Your task to perform on an android device: set default search engine in the chrome app Image 0: 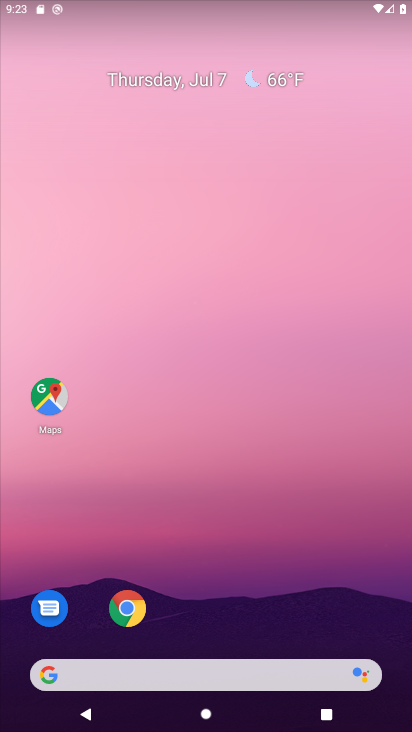
Step 0: click (132, 603)
Your task to perform on an android device: set default search engine in the chrome app Image 1: 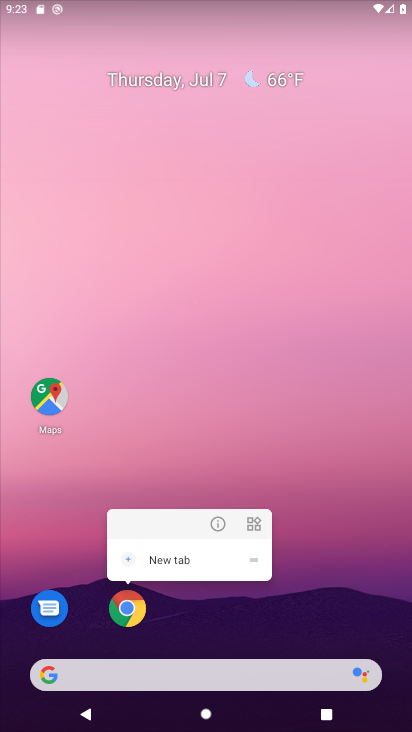
Step 1: click (126, 603)
Your task to perform on an android device: set default search engine in the chrome app Image 2: 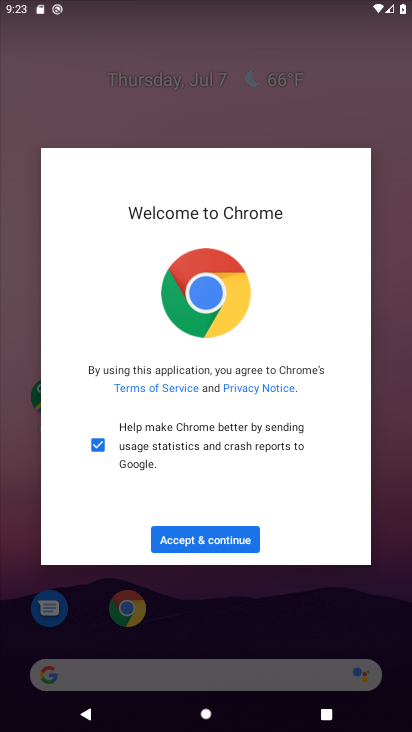
Step 2: click (202, 533)
Your task to perform on an android device: set default search engine in the chrome app Image 3: 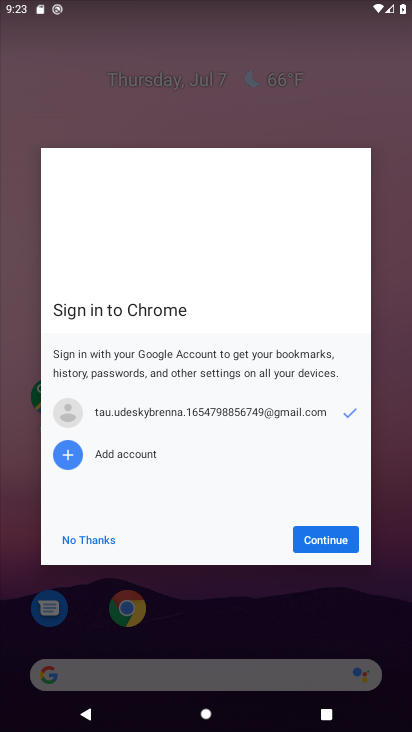
Step 3: click (331, 535)
Your task to perform on an android device: set default search engine in the chrome app Image 4: 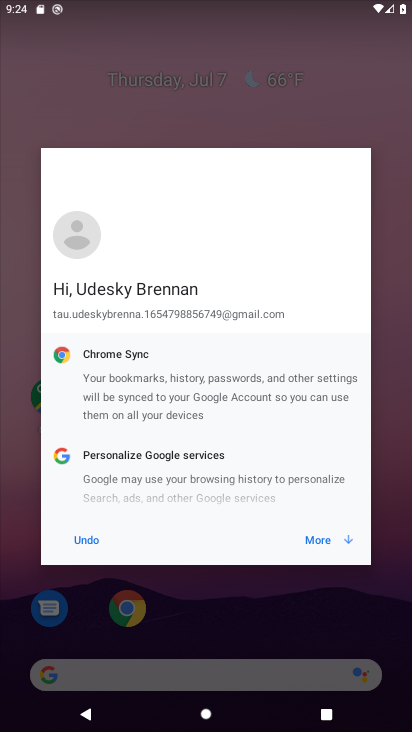
Step 4: click (353, 547)
Your task to perform on an android device: set default search engine in the chrome app Image 5: 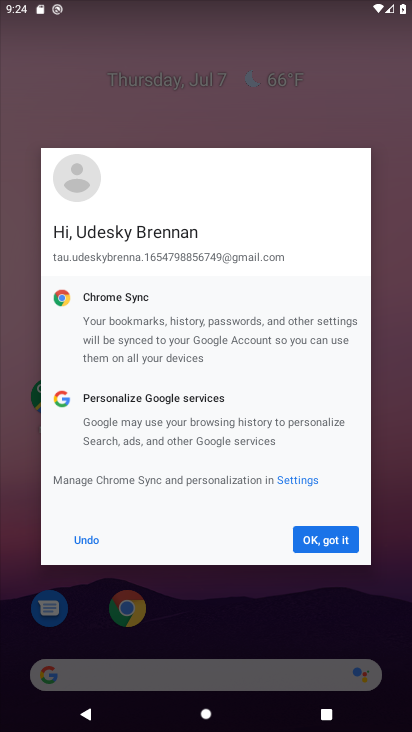
Step 5: click (333, 534)
Your task to perform on an android device: set default search engine in the chrome app Image 6: 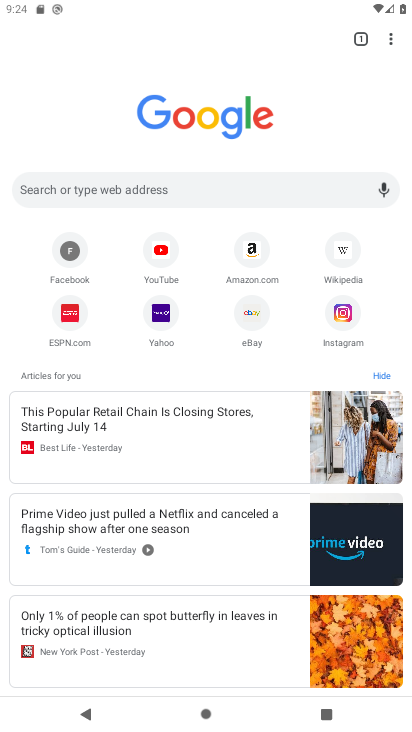
Step 6: click (392, 40)
Your task to perform on an android device: set default search engine in the chrome app Image 7: 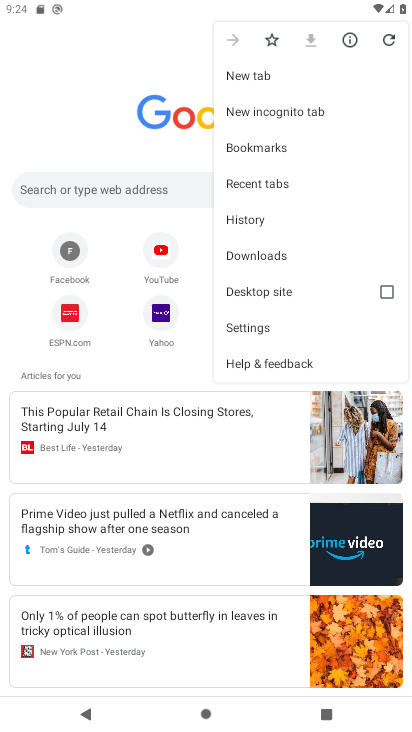
Step 7: click (250, 326)
Your task to perform on an android device: set default search engine in the chrome app Image 8: 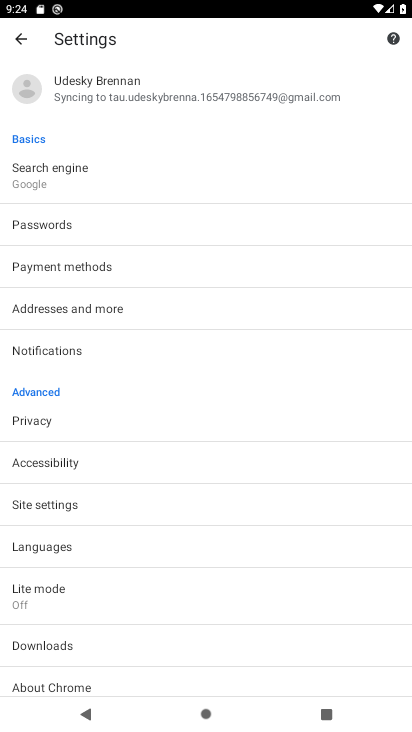
Step 8: click (112, 183)
Your task to perform on an android device: set default search engine in the chrome app Image 9: 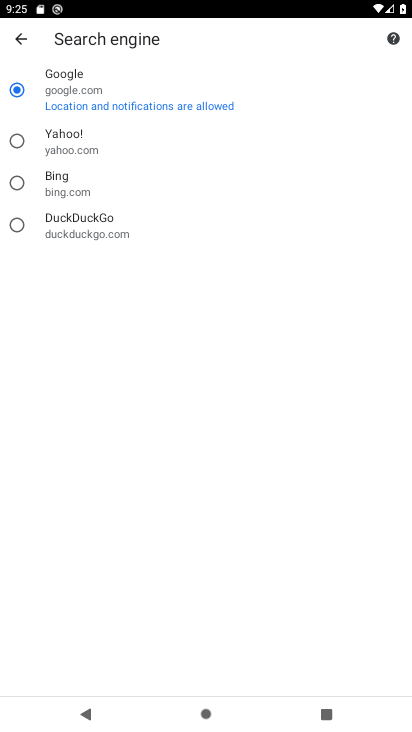
Step 9: task complete